Your task to perform on an android device: toggle notifications settings in the gmail app Image 0: 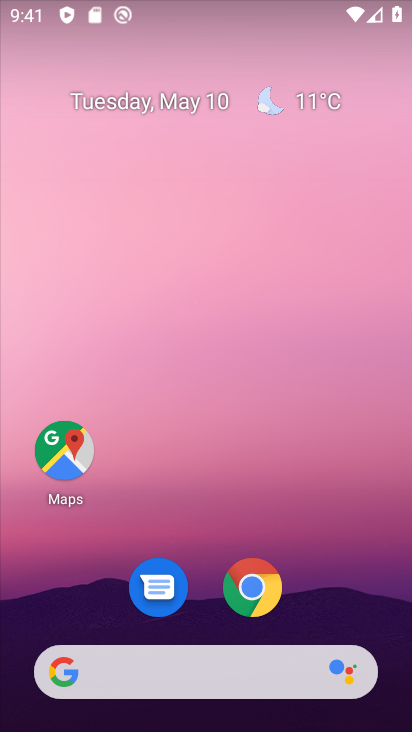
Step 0: drag from (232, 585) to (287, 160)
Your task to perform on an android device: toggle notifications settings in the gmail app Image 1: 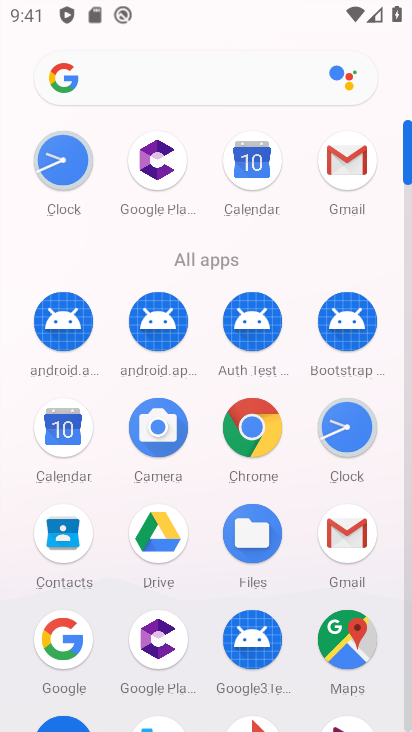
Step 1: click (323, 527)
Your task to perform on an android device: toggle notifications settings in the gmail app Image 2: 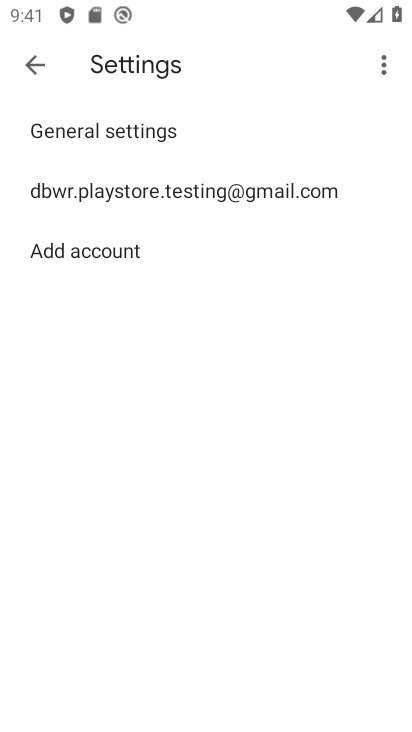
Step 2: click (102, 122)
Your task to perform on an android device: toggle notifications settings in the gmail app Image 3: 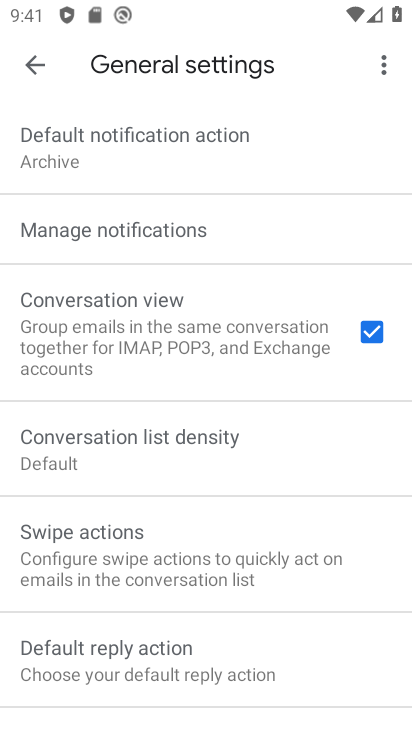
Step 3: click (152, 231)
Your task to perform on an android device: toggle notifications settings in the gmail app Image 4: 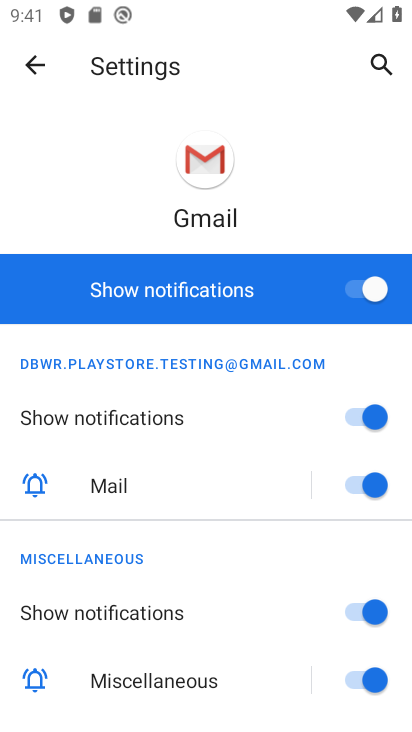
Step 4: click (341, 287)
Your task to perform on an android device: toggle notifications settings in the gmail app Image 5: 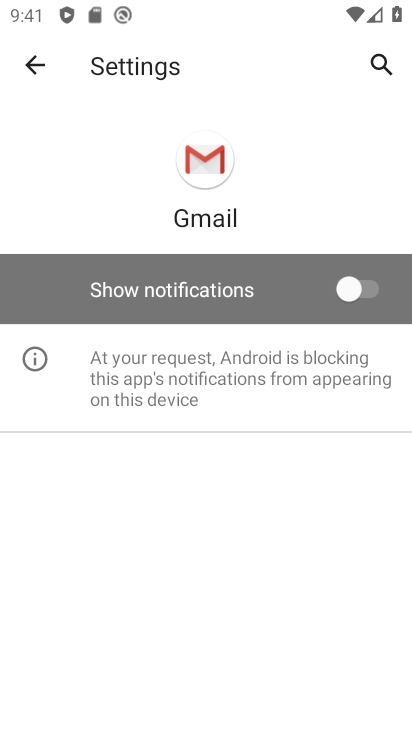
Step 5: task complete